Your task to perform on an android device: Show the shopping cart on ebay. Image 0: 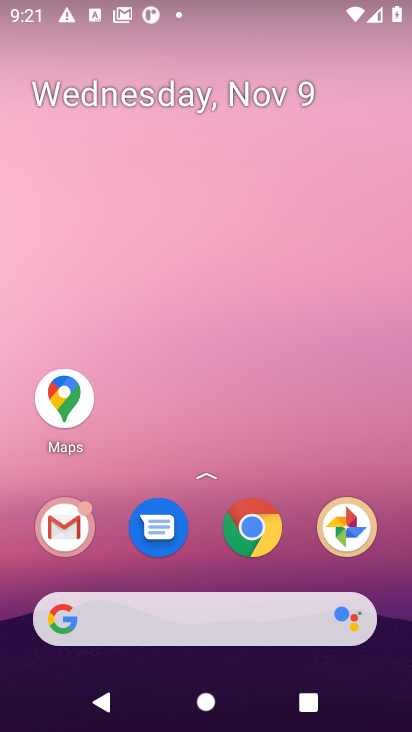
Step 0: click (253, 537)
Your task to perform on an android device: Show the shopping cart on ebay. Image 1: 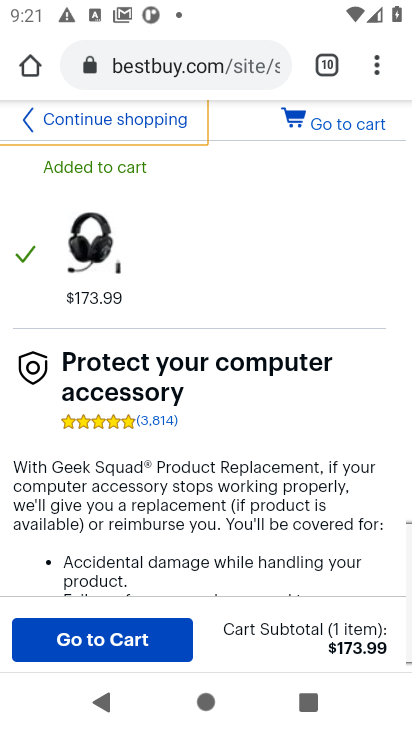
Step 1: click (198, 62)
Your task to perform on an android device: Show the shopping cart on ebay. Image 2: 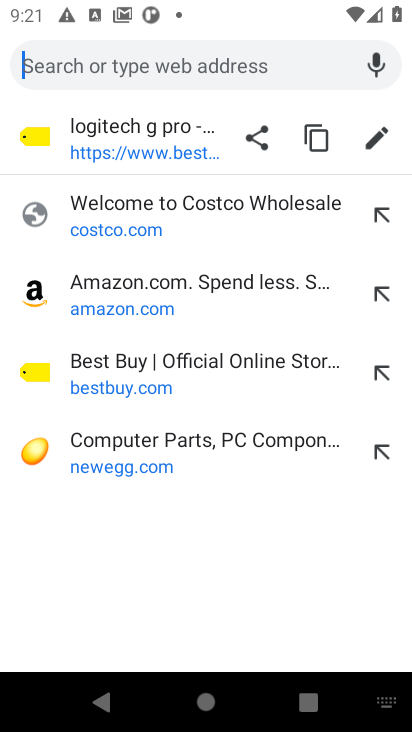
Step 2: type "ebay.com"
Your task to perform on an android device: Show the shopping cart on ebay. Image 3: 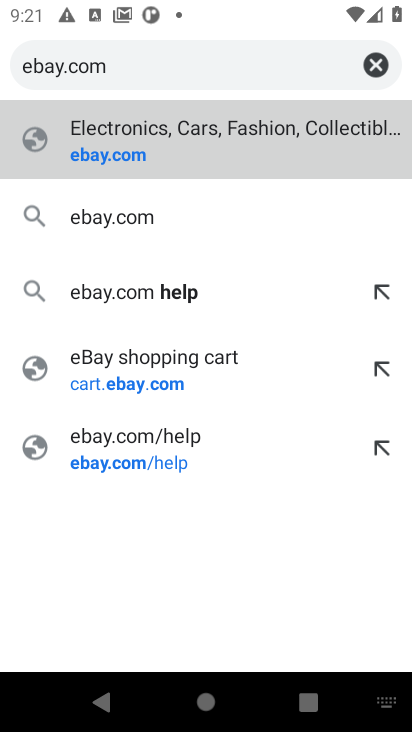
Step 3: click (124, 160)
Your task to perform on an android device: Show the shopping cart on ebay. Image 4: 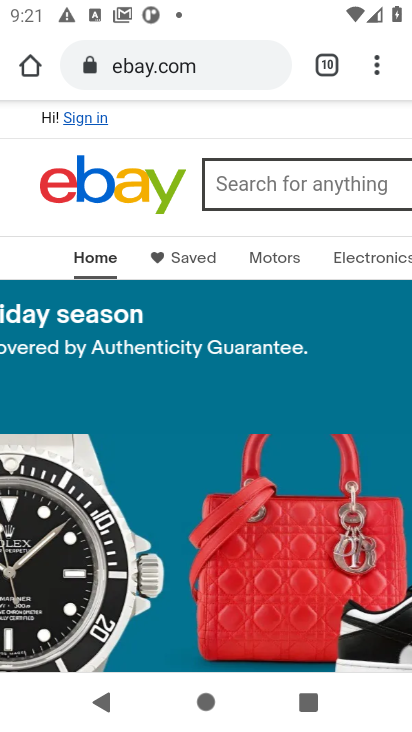
Step 4: drag from (230, 229) to (6, 202)
Your task to perform on an android device: Show the shopping cart on ebay. Image 5: 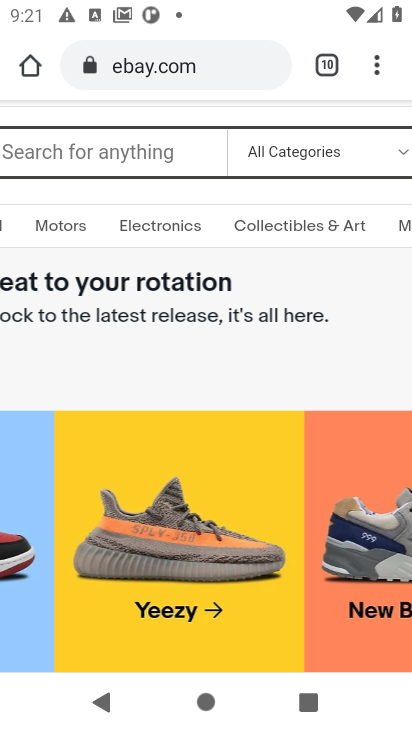
Step 5: drag from (347, 190) to (33, 217)
Your task to perform on an android device: Show the shopping cart on ebay. Image 6: 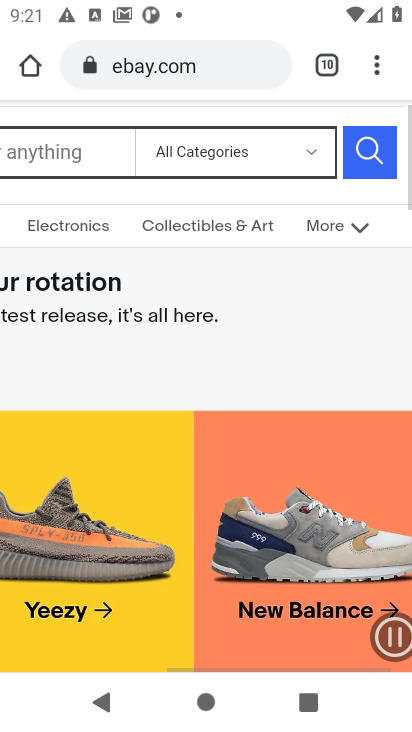
Step 6: drag from (328, 195) to (332, 254)
Your task to perform on an android device: Show the shopping cart on ebay. Image 7: 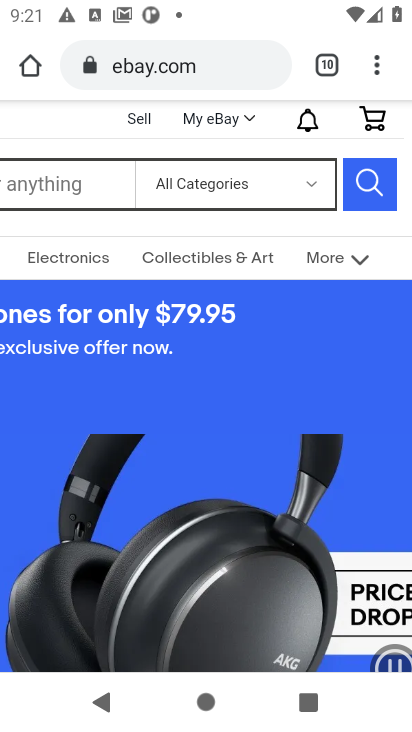
Step 7: click (372, 128)
Your task to perform on an android device: Show the shopping cart on ebay. Image 8: 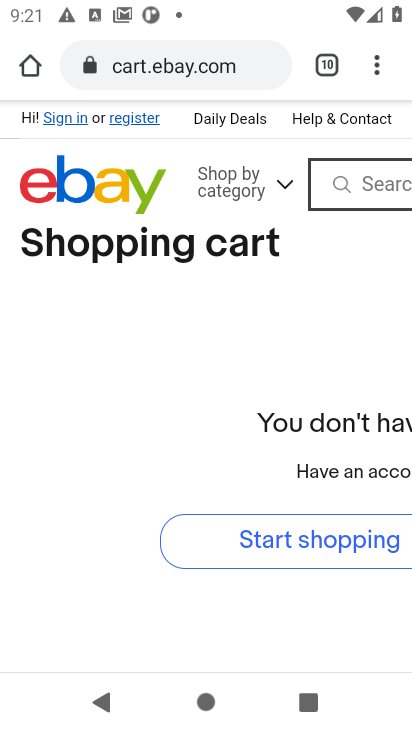
Step 8: task complete